Your task to perform on an android device: set the timer Image 0: 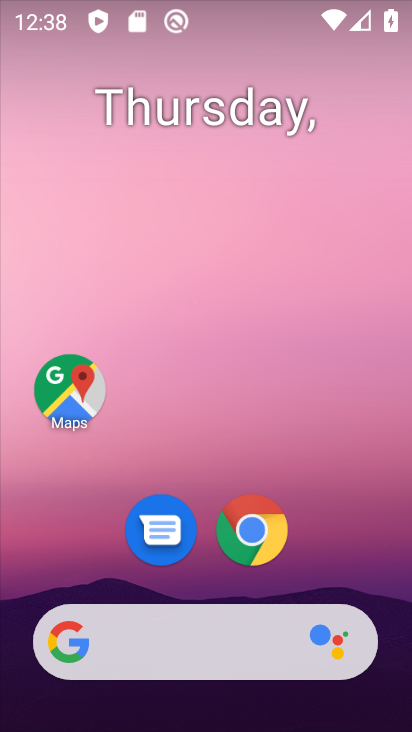
Step 0: drag from (224, 573) to (194, 5)
Your task to perform on an android device: set the timer Image 1: 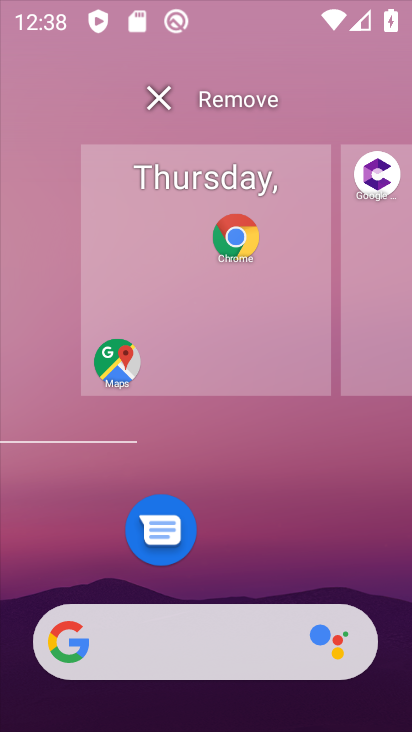
Step 1: click (215, 462)
Your task to perform on an android device: set the timer Image 2: 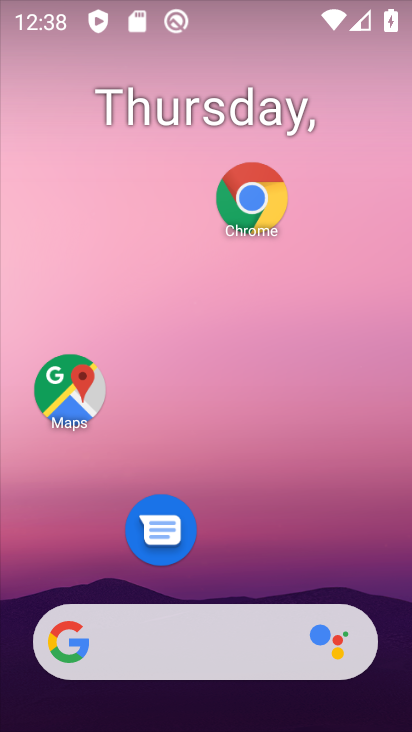
Step 2: drag from (215, 573) to (223, 8)
Your task to perform on an android device: set the timer Image 3: 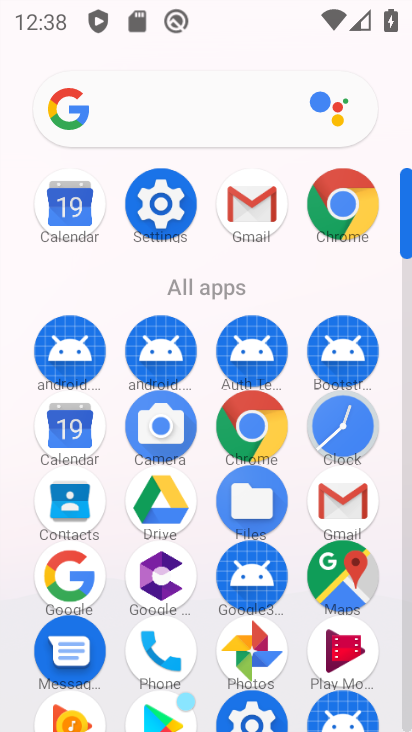
Step 3: click (329, 436)
Your task to perform on an android device: set the timer Image 4: 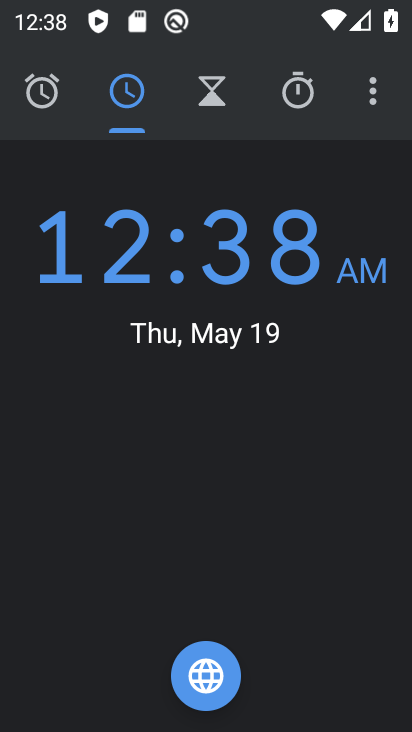
Step 4: click (296, 111)
Your task to perform on an android device: set the timer Image 5: 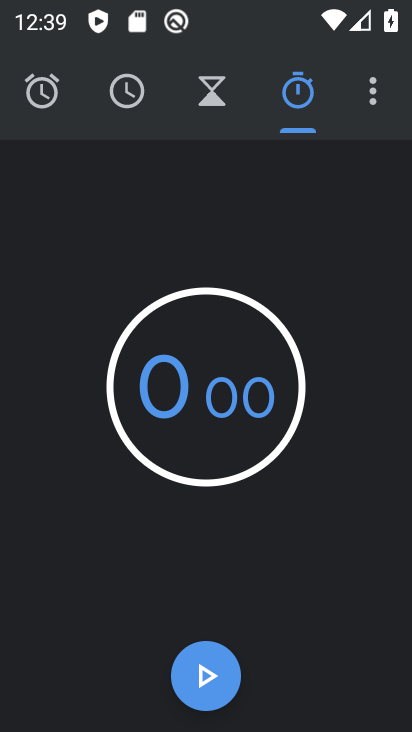
Step 5: click (219, 99)
Your task to perform on an android device: set the timer Image 6: 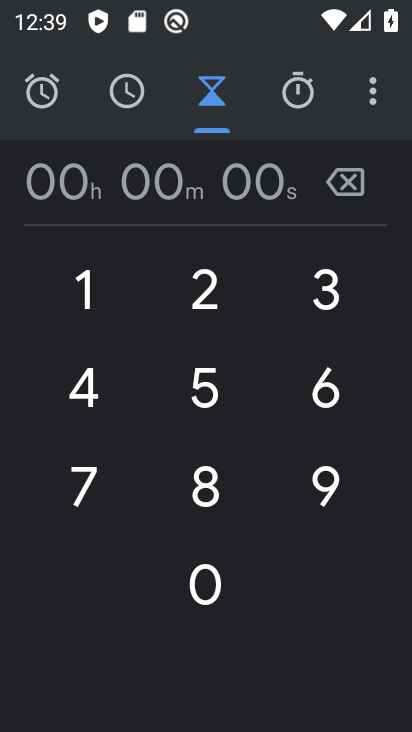
Step 6: click (208, 279)
Your task to perform on an android device: set the timer Image 7: 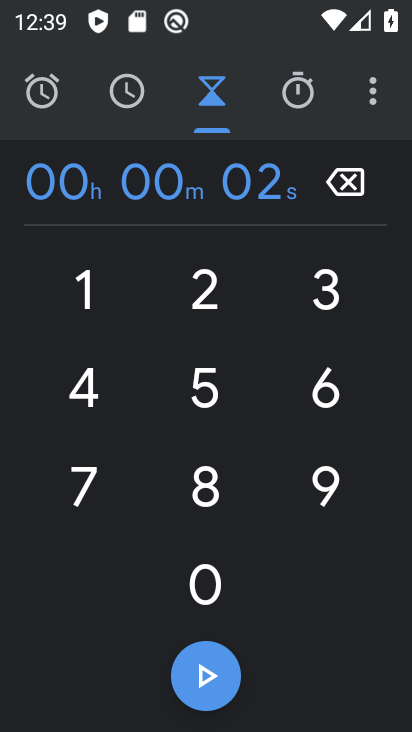
Step 7: click (198, 379)
Your task to perform on an android device: set the timer Image 8: 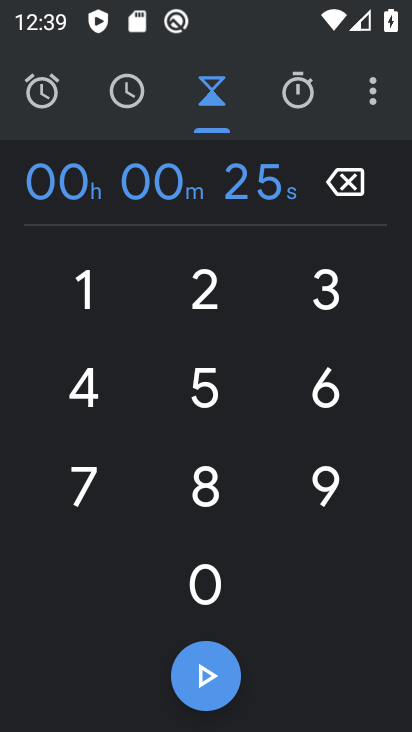
Step 8: click (212, 679)
Your task to perform on an android device: set the timer Image 9: 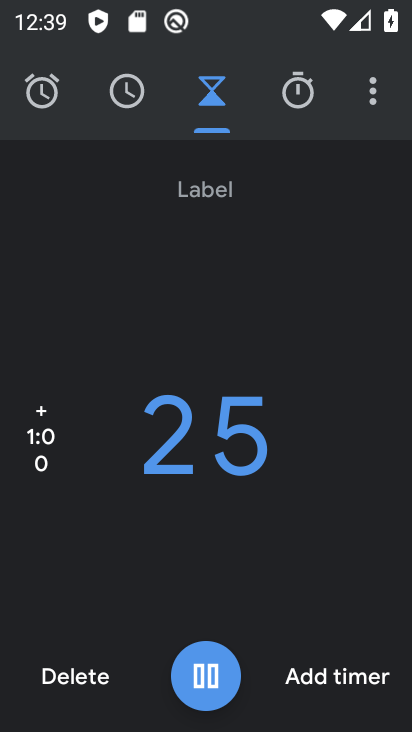
Step 9: task complete